Your task to perform on an android device: Check the news Image 0: 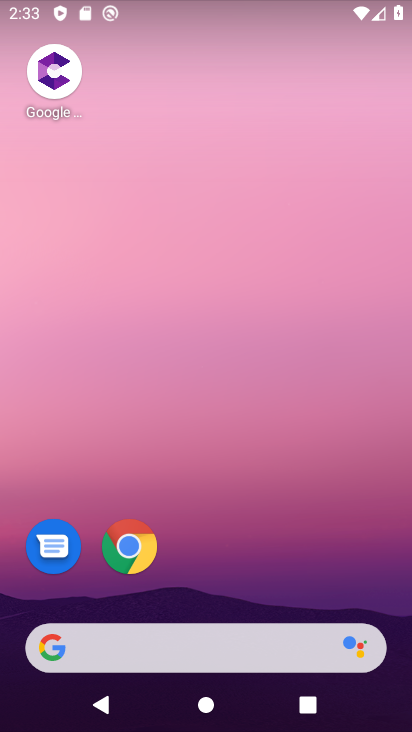
Step 0: click (221, 628)
Your task to perform on an android device: Check the news Image 1: 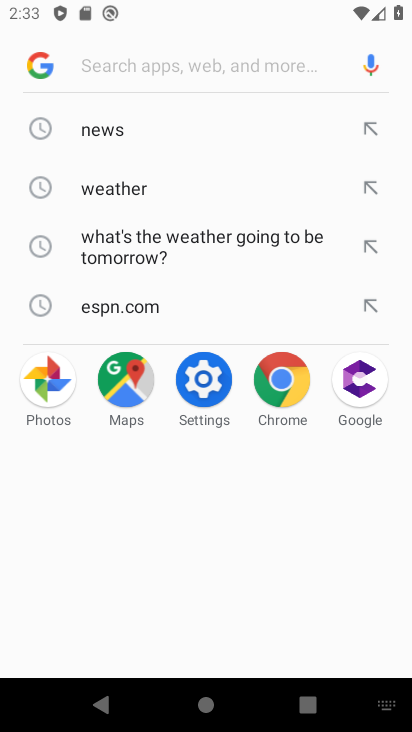
Step 1: type "news"
Your task to perform on an android device: Check the news Image 2: 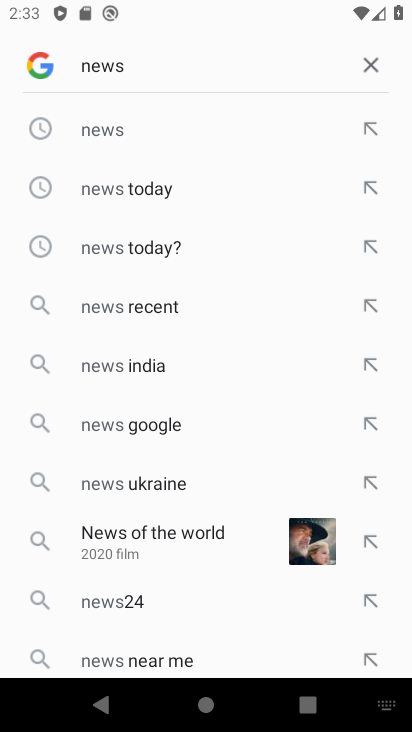
Step 2: click (142, 148)
Your task to perform on an android device: Check the news Image 3: 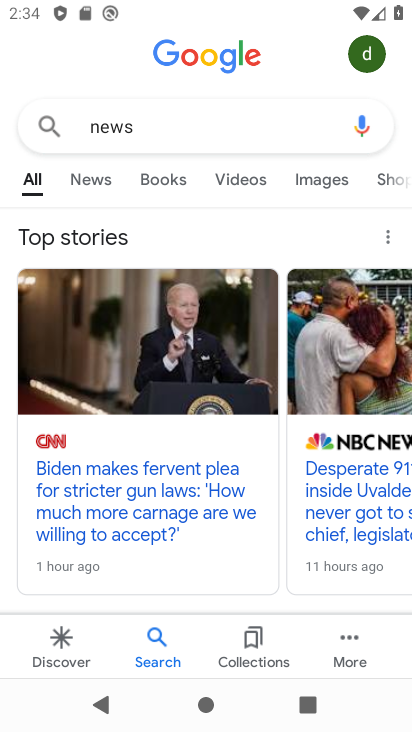
Step 3: task complete